Your task to perform on an android device: turn on the 12-hour format for clock Image 0: 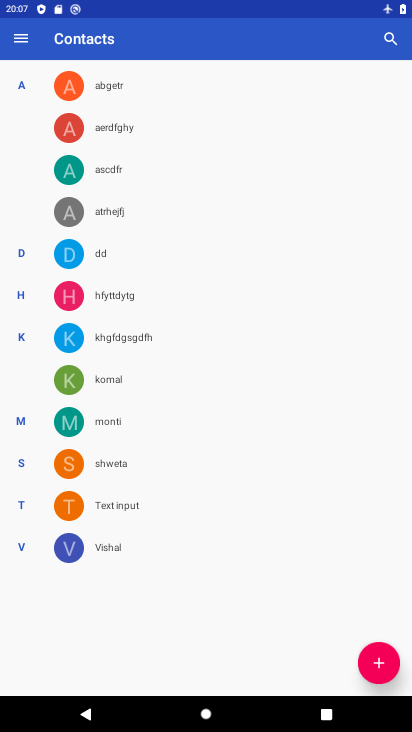
Step 0: press home button
Your task to perform on an android device: turn on the 12-hour format for clock Image 1: 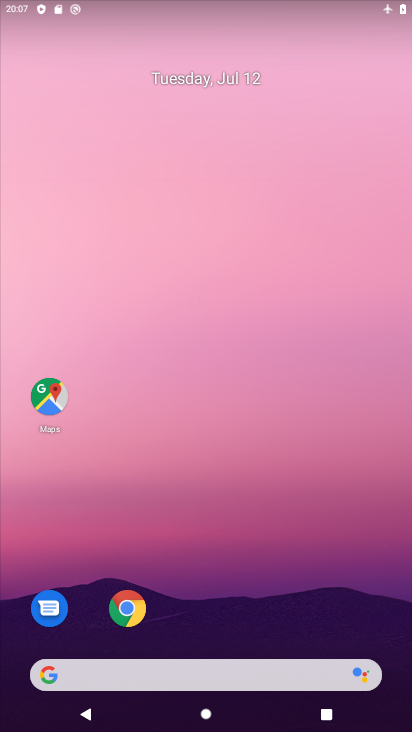
Step 1: drag from (196, 660) to (197, 88)
Your task to perform on an android device: turn on the 12-hour format for clock Image 2: 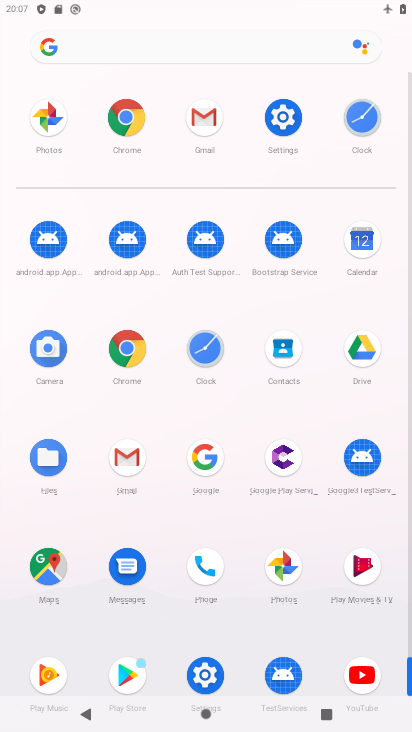
Step 2: click (370, 128)
Your task to perform on an android device: turn on the 12-hour format for clock Image 3: 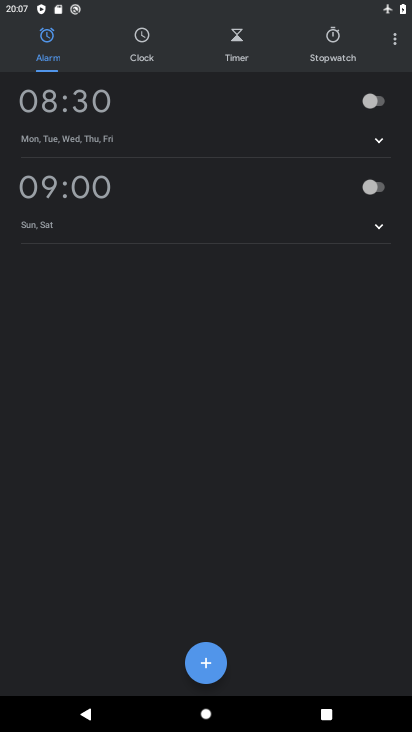
Step 3: click (394, 45)
Your task to perform on an android device: turn on the 12-hour format for clock Image 4: 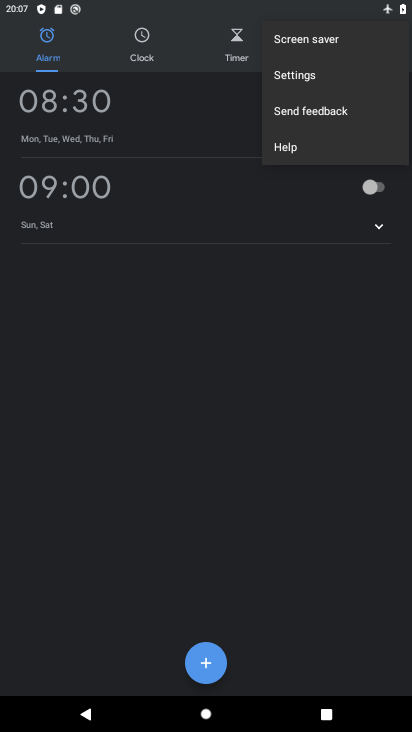
Step 4: click (301, 72)
Your task to perform on an android device: turn on the 12-hour format for clock Image 5: 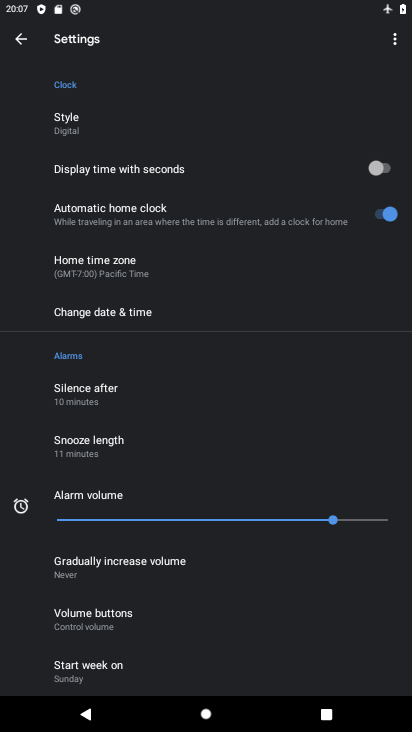
Step 5: click (139, 324)
Your task to perform on an android device: turn on the 12-hour format for clock Image 6: 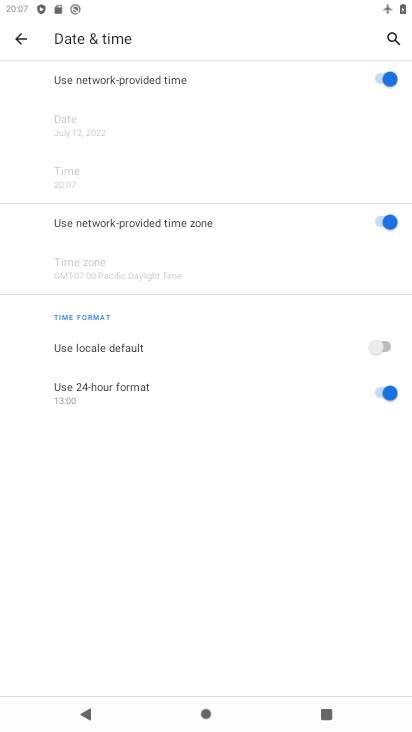
Step 6: click (393, 389)
Your task to perform on an android device: turn on the 12-hour format for clock Image 7: 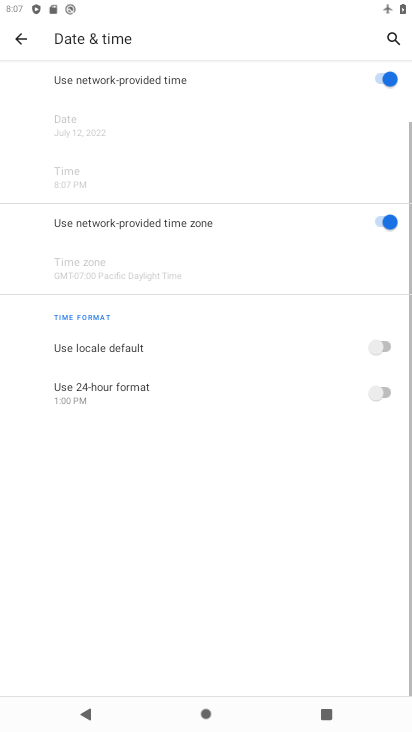
Step 7: task complete